Your task to perform on an android device: toggle sleep mode Image 0: 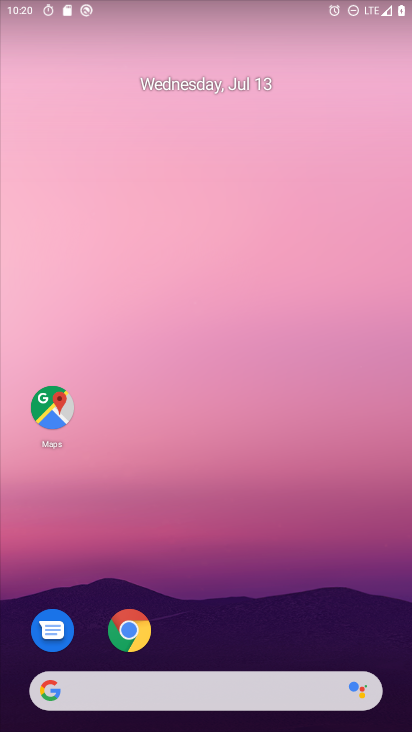
Step 0: drag from (396, 658) to (286, 32)
Your task to perform on an android device: toggle sleep mode Image 1: 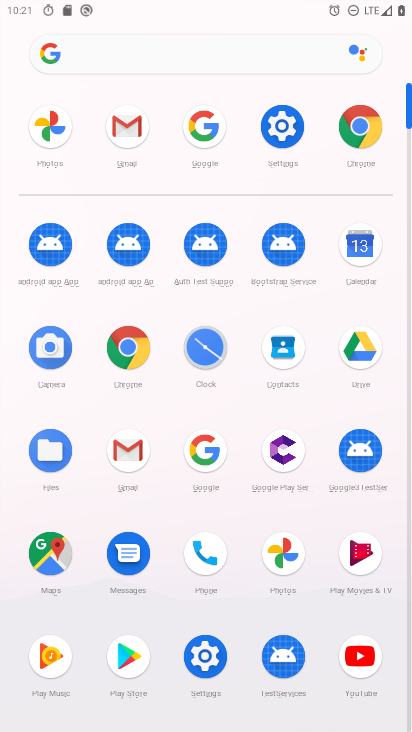
Step 1: click (197, 675)
Your task to perform on an android device: toggle sleep mode Image 2: 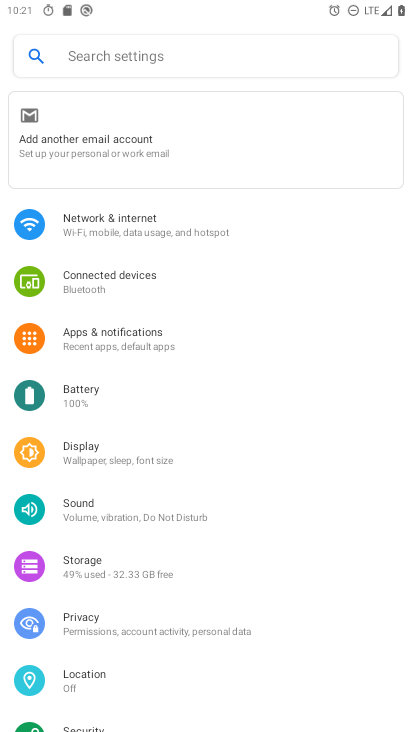
Step 2: task complete